Your task to perform on an android device: Go to Wikipedia Image 0: 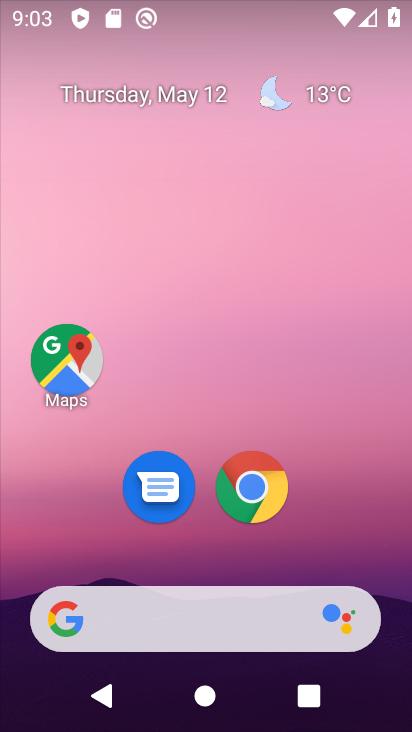
Step 0: click (250, 494)
Your task to perform on an android device: Go to Wikipedia Image 1: 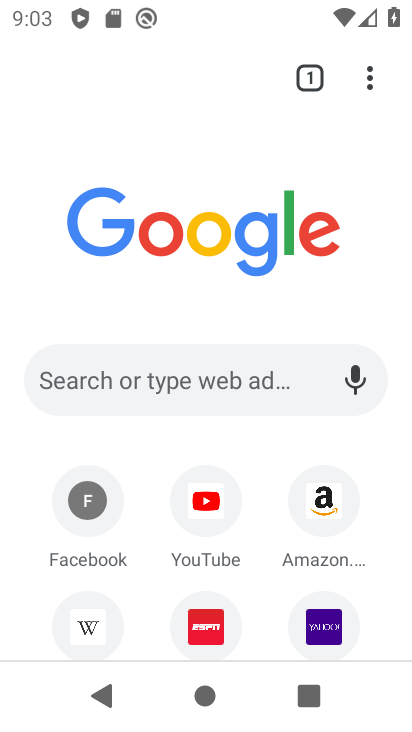
Step 1: click (95, 625)
Your task to perform on an android device: Go to Wikipedia Image 2: 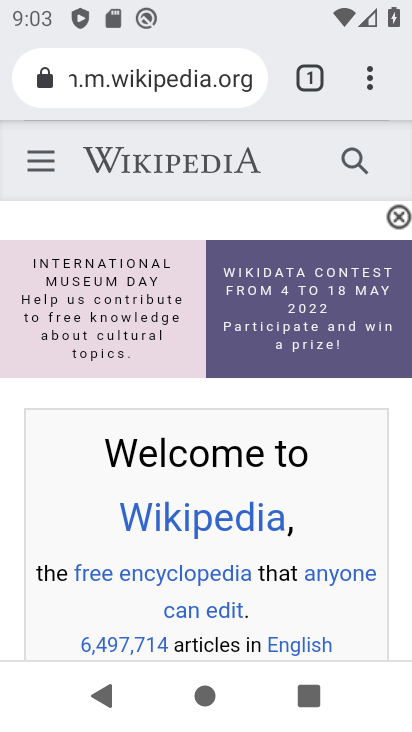
Step 2: task complete